Your task to perform on an android device: Set the phone to "Do not disturb". Image 0: 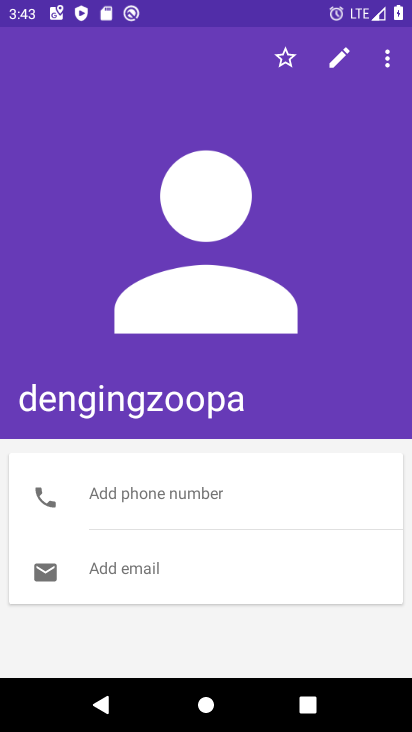
Step 0: press home button
Your task to perform on an android device: Set the phone to "Do not disturb". Image 1: 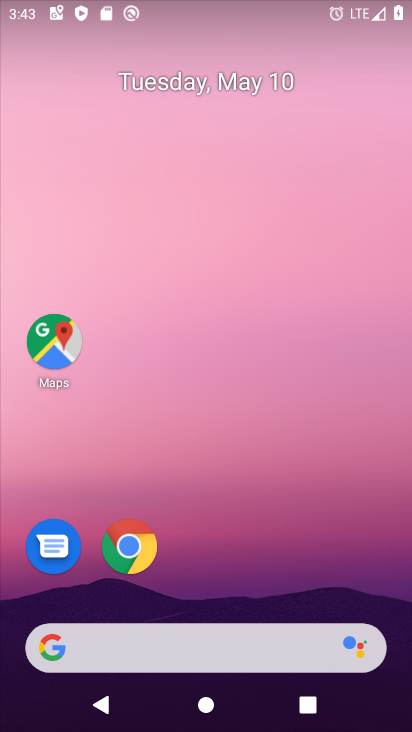
Step 1: drag from (207, 582) to (212, 42)
Your task to perform on an android device: Set the phone to "Do not disturb". Image 2: 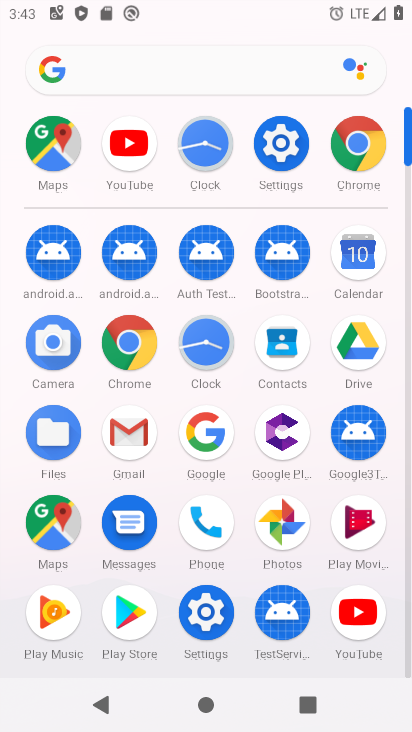
Step 2: click (218, 618)
Your task to perform on an android device: Set the phone to "Do not disturb". Image 3: 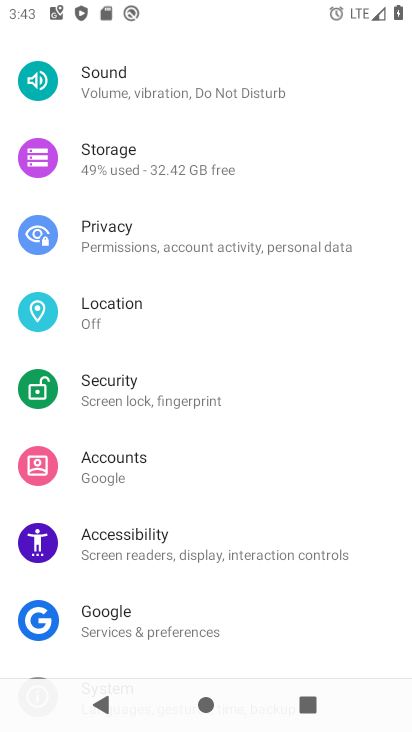
Step 3: drag from (223, 227) to (253, 417)
Your task to perform on an android device: Set the phone to "Do not disturb". Image 4: 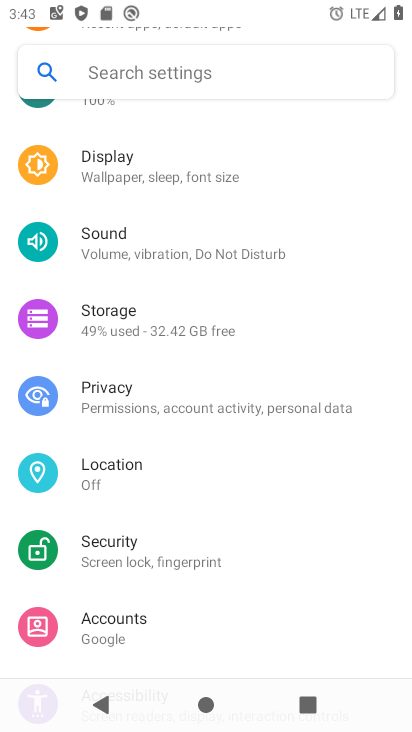
Step 4: click (166, 259)
Your task to perform on an android device: Set the phone to "Do not disturb". Image 5: 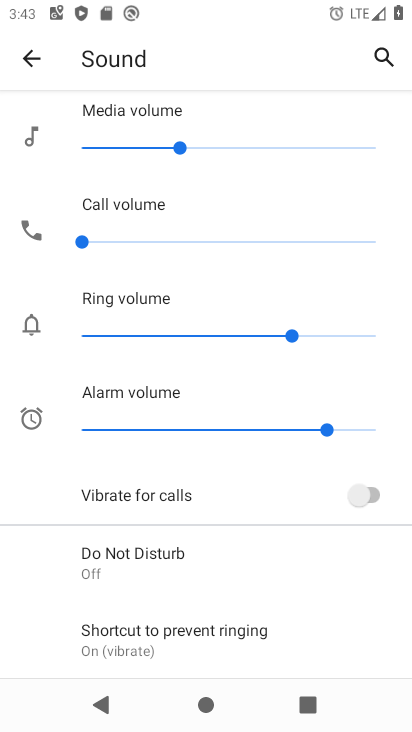
Step 5: click (164, 569)
Your task to perform on an android device: Set the phone to "Do not disturb". Image 6: 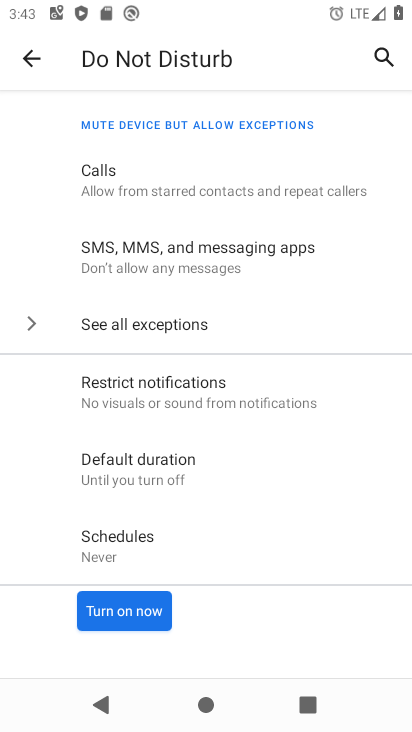
Step 6: click (135, 614)
Your task to perform on an android device: Set the phone to "Do not disturb". Image 7: 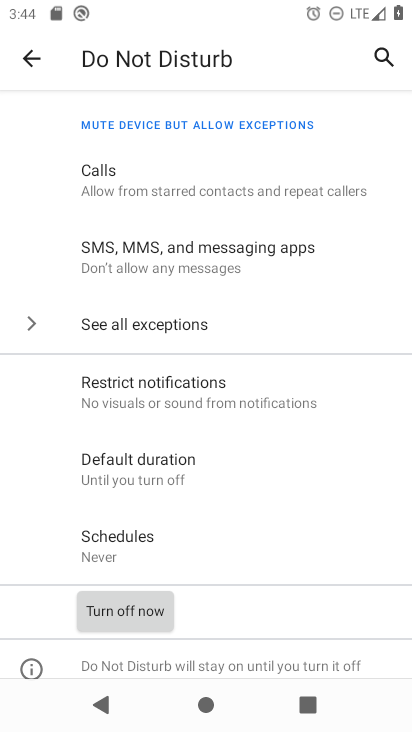
Step 7: task complete